Your task to perform on an android device: Add bose soundlink mini to the cart on ebay Image 0: 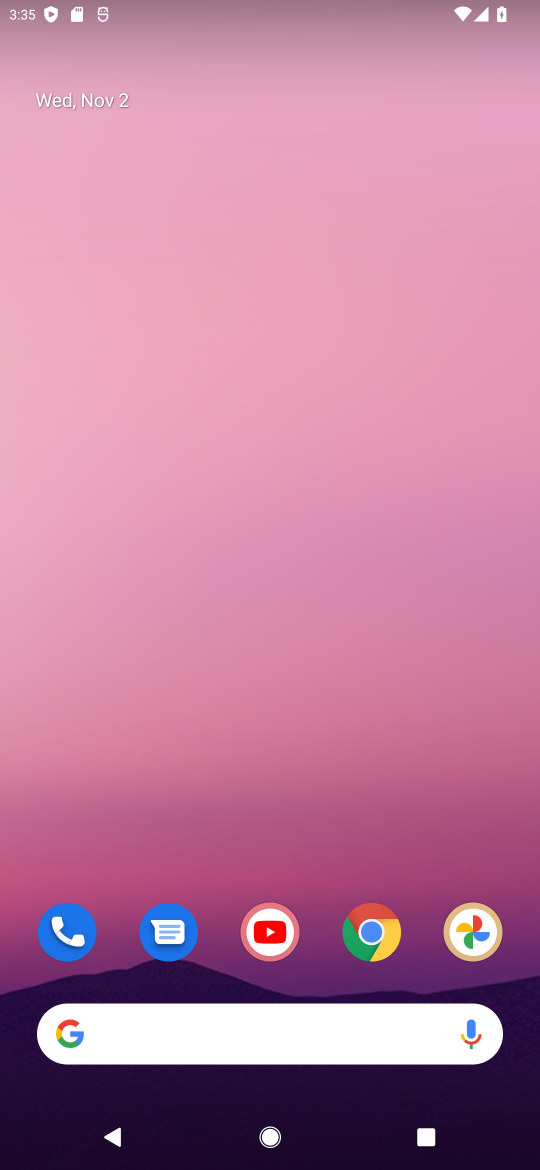
Step 0: click (364, 928)
Your task to perform on an android device: Add bose soundlink mini to the cart on ebay Image 1: 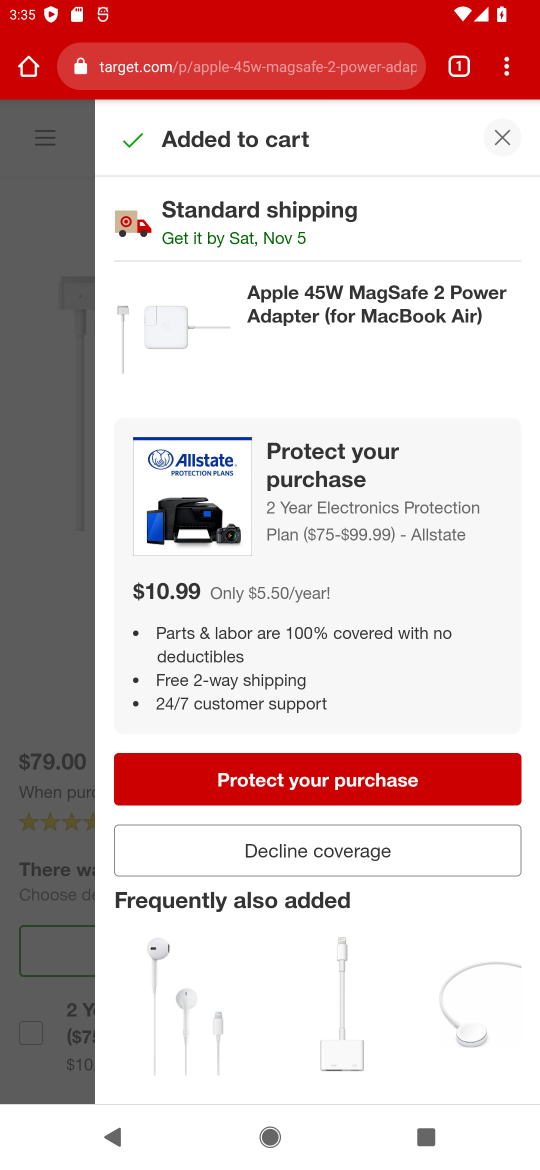
Step 1: click (300, 64)
Your task to perform on an android device: Add bose soundlink mini to the cart on ebay Image 2: 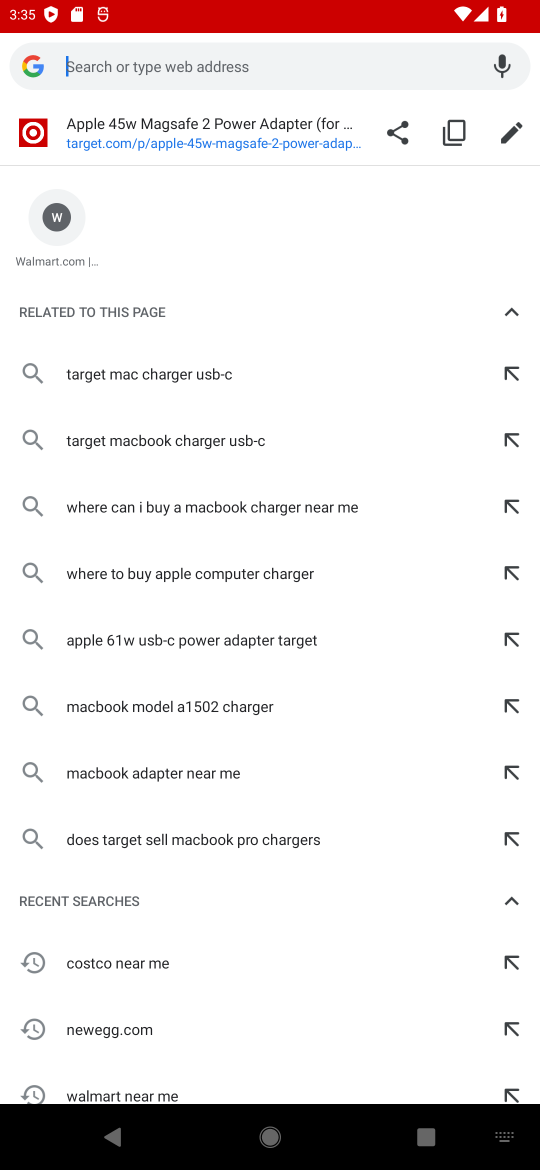
Step 2: type "bose soundlink mini "
Your task to perform on an android device: Add bose soundlink mini to the cart on ebay Image 3: 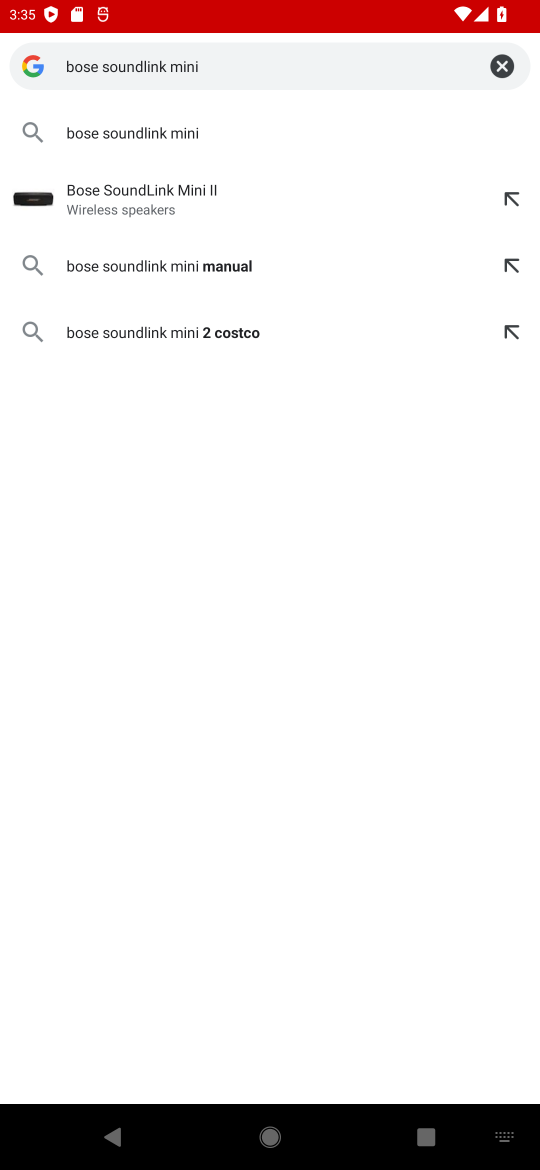
Step 3: click (153, 124)
Your task to perform on an android device: Add bose soundlink mini to the cart on ebay Image 4: 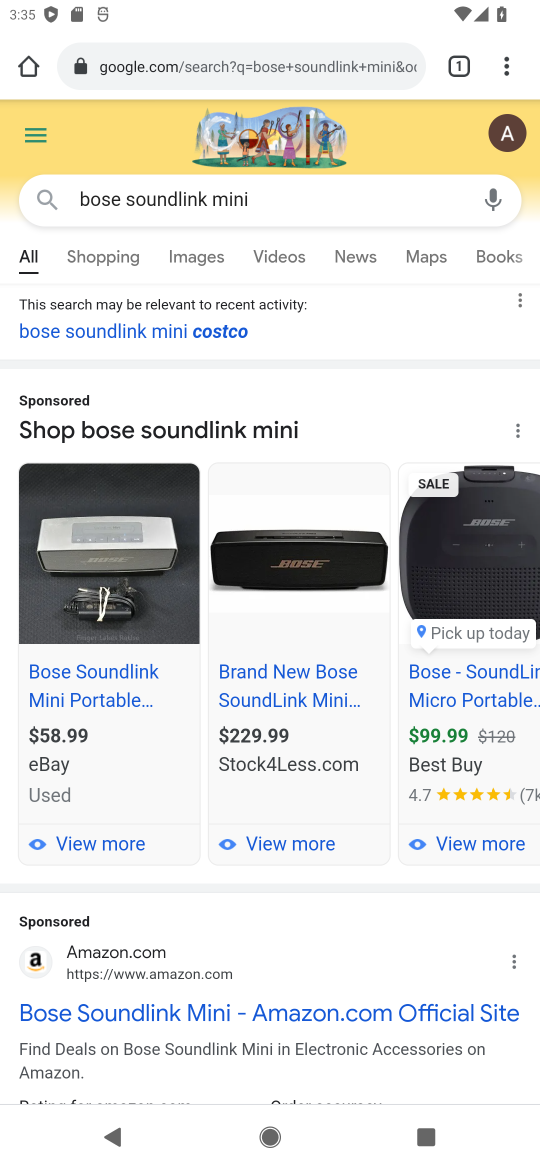
Step 4: click (80, 548)
Your task to perform on an android device: Add bose soundlink mini to the cart on ebay Image 5: 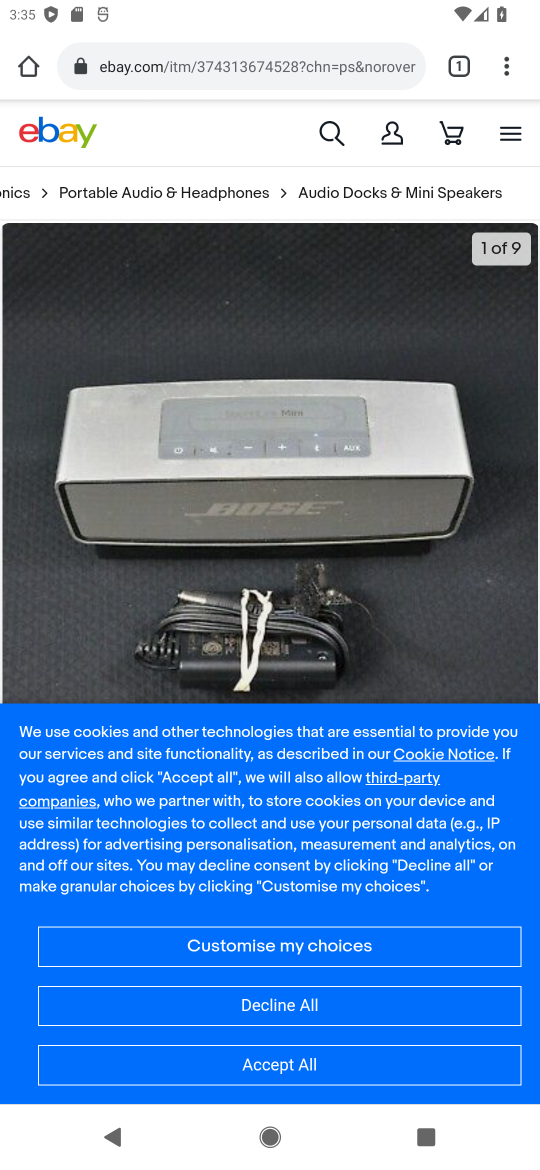
Step 5: click (339, 1071)
Your task to perform on an android device: Add bose soundlink mini to the cart on ebay Image 6: 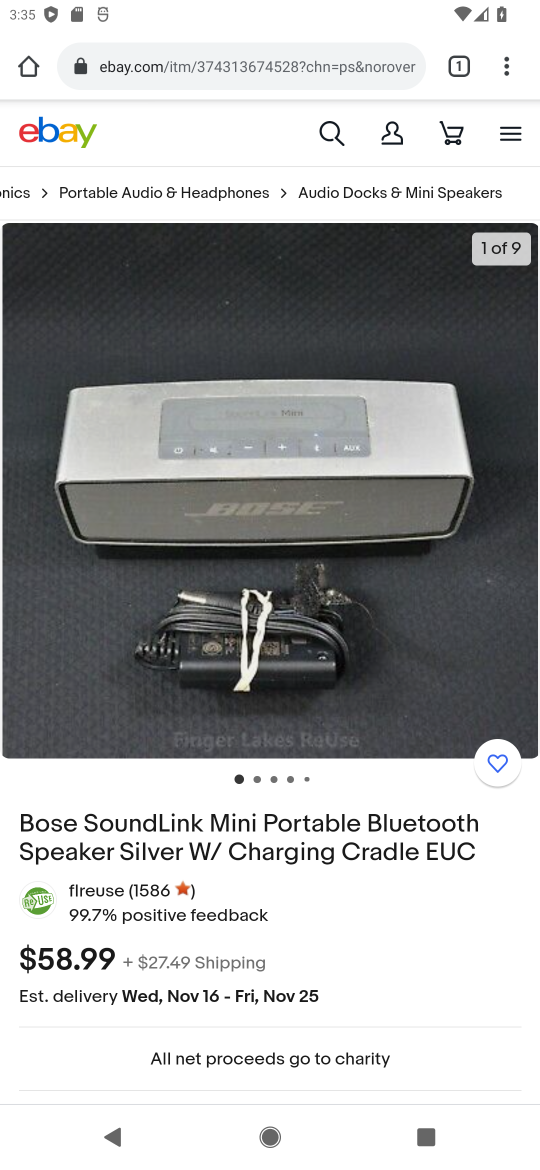
Step 6: drag from (328, 701) to (351, 350)
Your task to perform on an android device: Add bose soundlink mini to the cart on ebay Image 7: 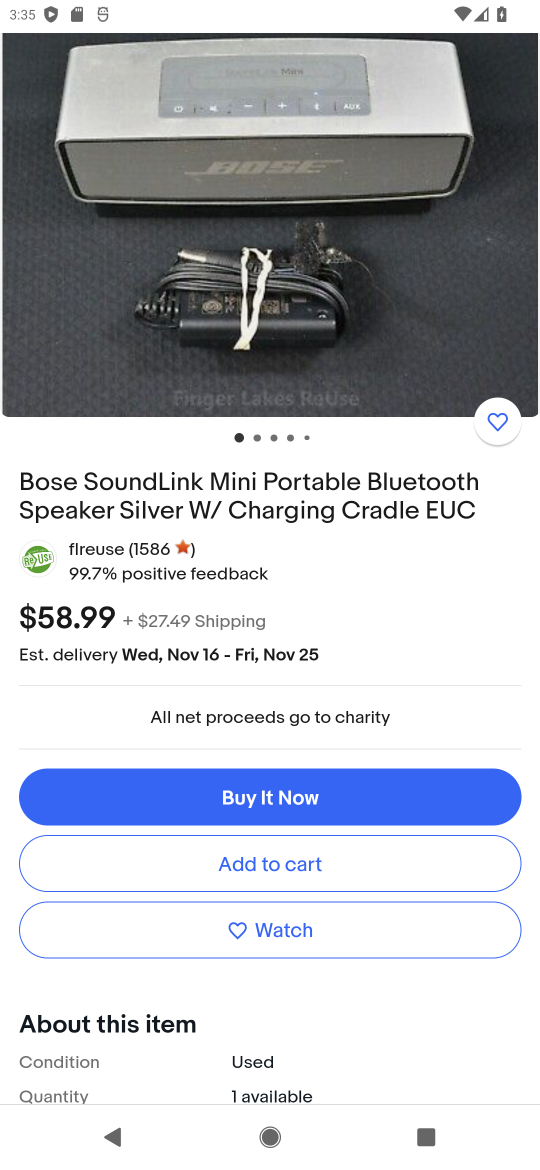
Step 7: click (353, 855)
Your task to perform on an android device: Add bose soundlink mini to the cart on ebay Image 8: 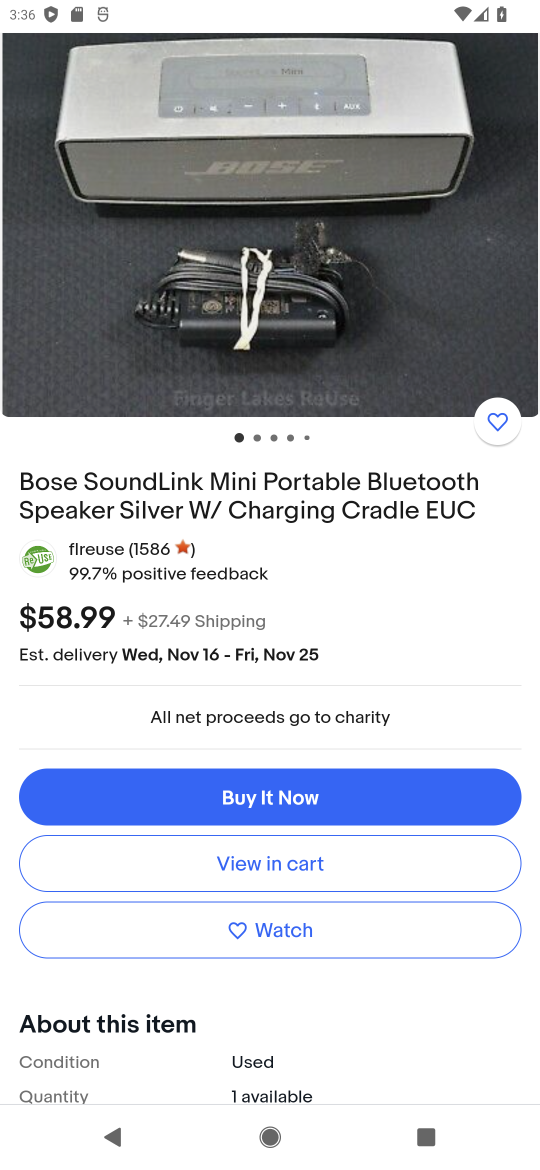
Step 8: click (300, 865)
Your task to perform on an android device: Add bose soundlink mini to the cart on ebay Image 9: 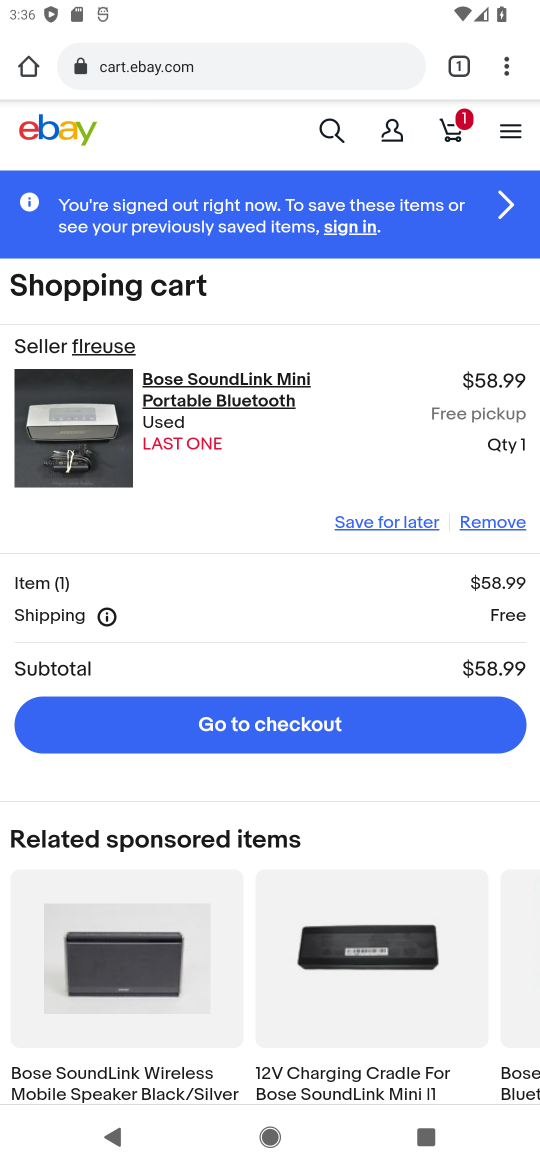
Step 9: task complete